Your task to perform on an android device: move a message to another label in the gmail app Image 0: 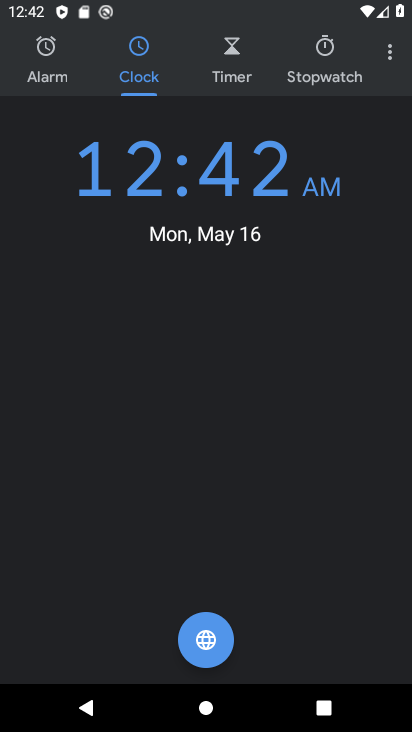
Step 0: press home button
Your task to perform on an android device: move a message to another label in the gmail app Image 1: 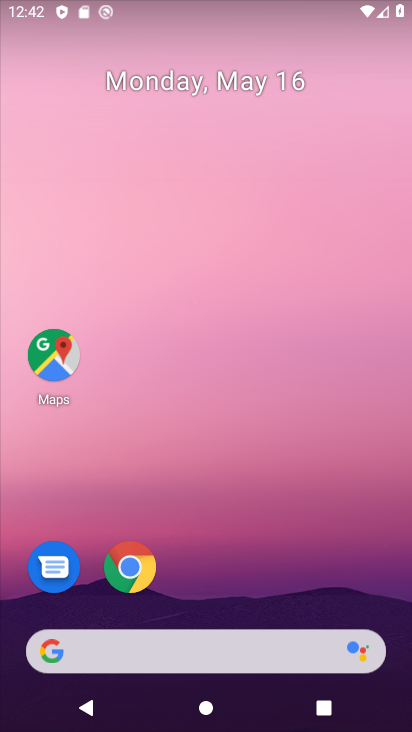
Step 1: drag from (200, 616) to (212, 19)
Your task to perform on an android device: move a message to another label in the gmail app Image 2: 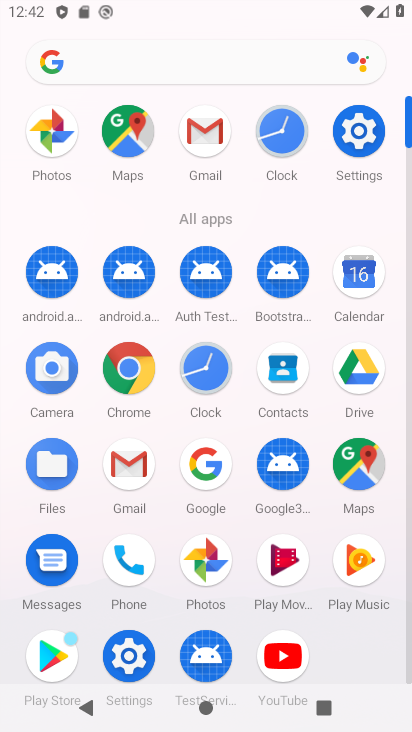
Step 2: click (201, 149)
Your task to perform on an android device: move a message to another label in the gmail app Image 3: 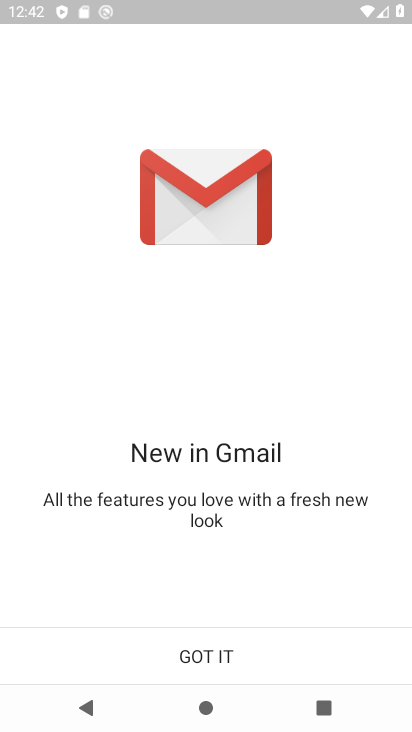
Step 3: click (207, 653)
Your task to perform on an android device: move a message to another label in the gmail app Image 4: 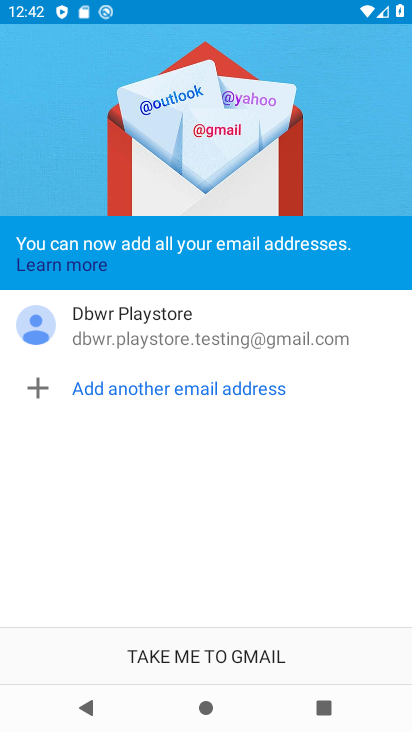
Step 4: click (207, 653)
Your task to perform on an android device: move a message to another label in the gmail app Image 5: 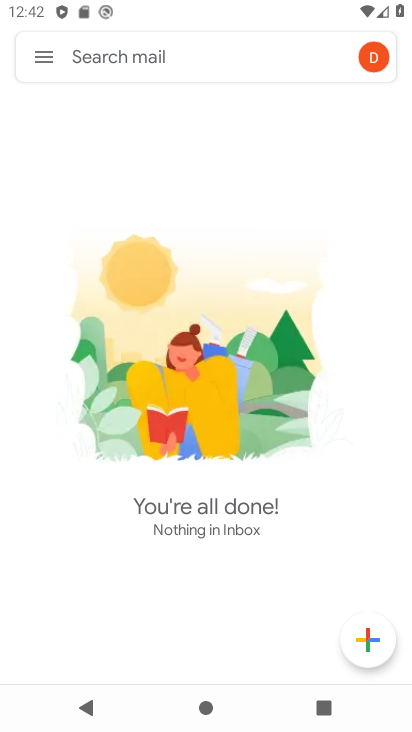
Step 5: click (38, 60)
Your task to perform on an android device: move a message to another label in the gmail app Image 6: 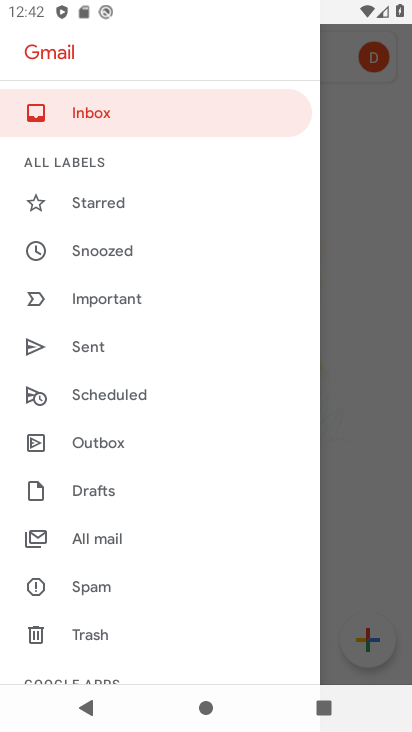
Step 6: click (197, 537)
Your task to perform on an android device: move a message to another label in the gmail app Image 7: 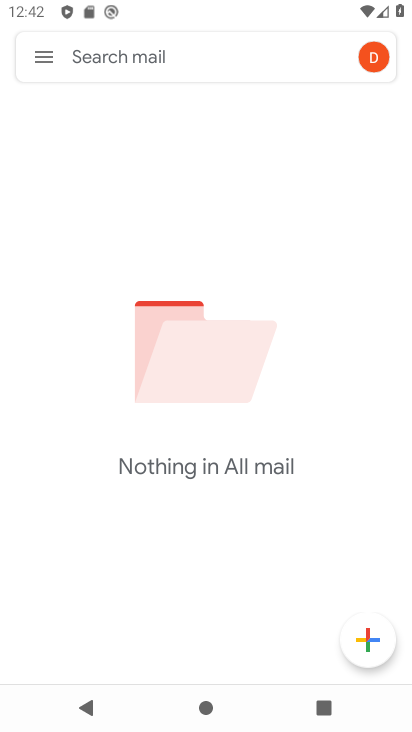
Step 7: task complete